Your task to perform on an android device: check storage Image 0: 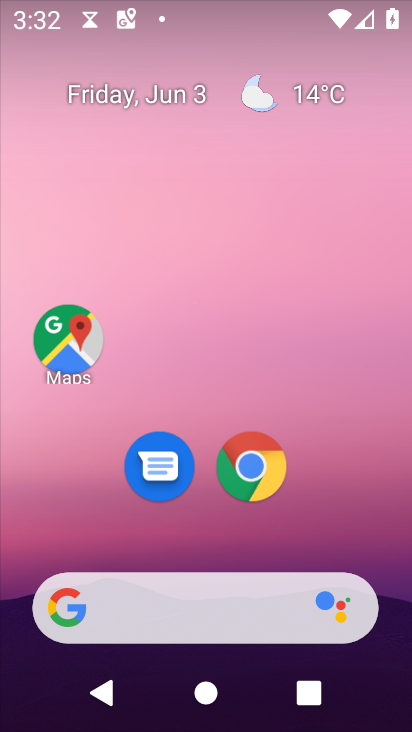
Step 0: click (79, 330)
Your task to perform on an android device: check storage Image 1: 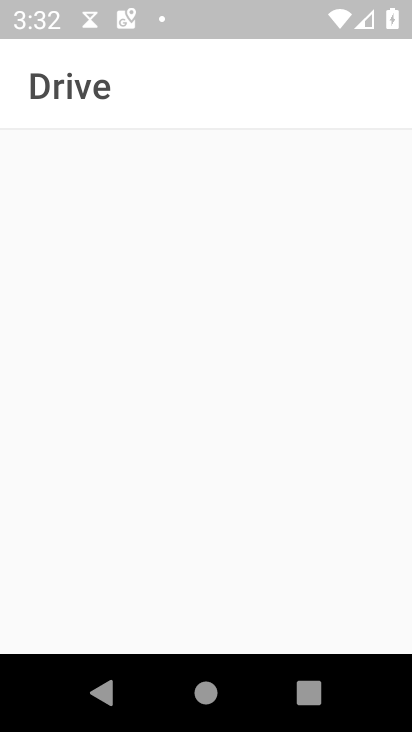
Step 1: press home button
Your task to perform on an android device: check storage Image 2: 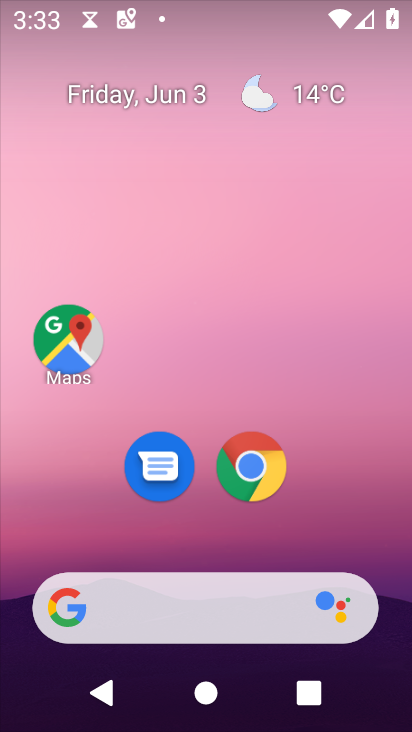
Step 2: drag from (333, 511) to (297, 197)
Your task to perform on an android device: check storage Image 3: 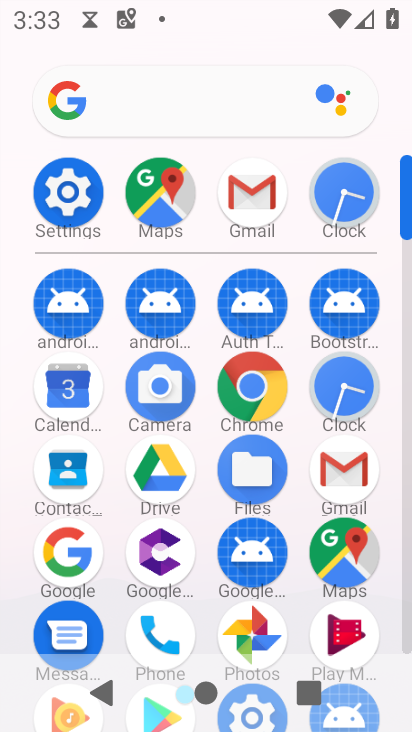
Step 3: click (51, 194)
Your task to perform on an android device: check storage Image 4: 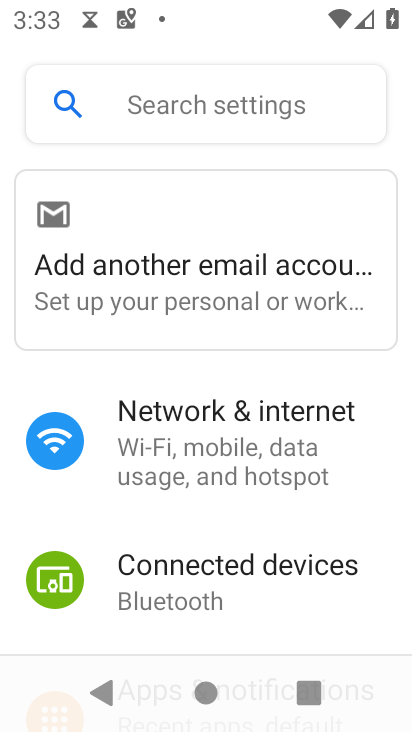
Step 4: drag from (254, 539) to (282, 173)
Your task to perform on an android device: check storage Image 5: 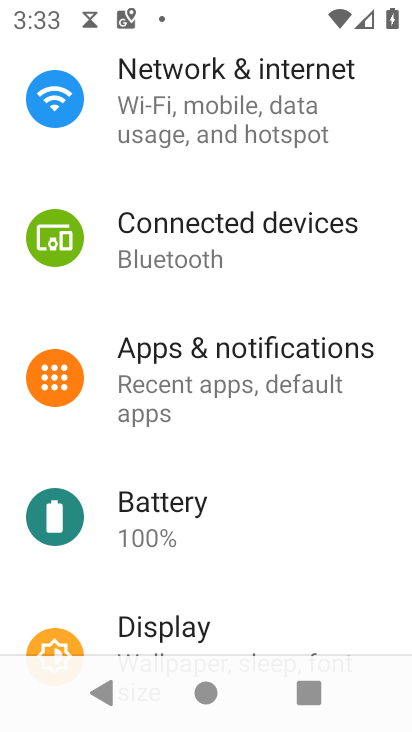
Step 5: drag from (250, 460) to (244, 133)
Your task to perform on an android device: check storage Image 6: 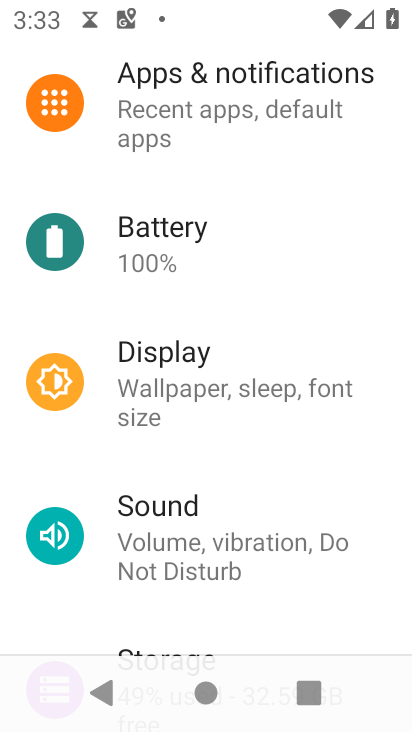
Step 6: drag from (238, 506) to (218, 155)
Your task to perform on an android device: check storage Image 7: 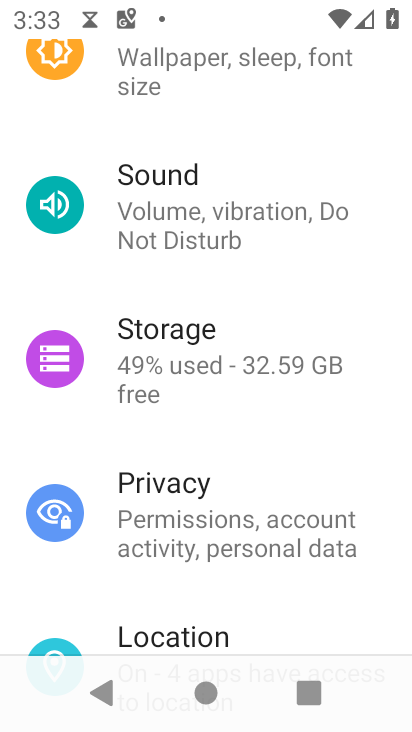
Step 7: drag from (254, 540) to (259, 285)
Your task to perform on an android device: check storage Image 8: 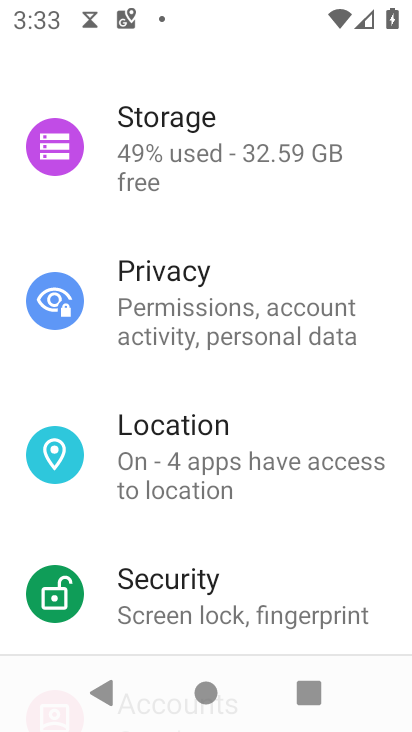
Step 8: click (244, 153)
Your task to perform on an android device: check storage Image 9: 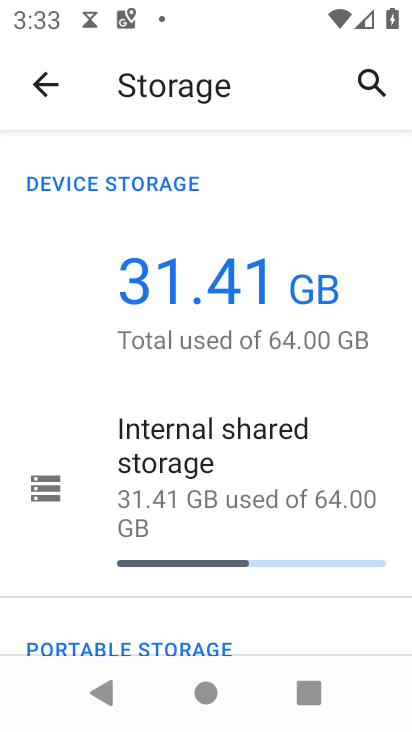
Step 9: task complete